Your task to perform on an android device: What is the recent news? Image 0: 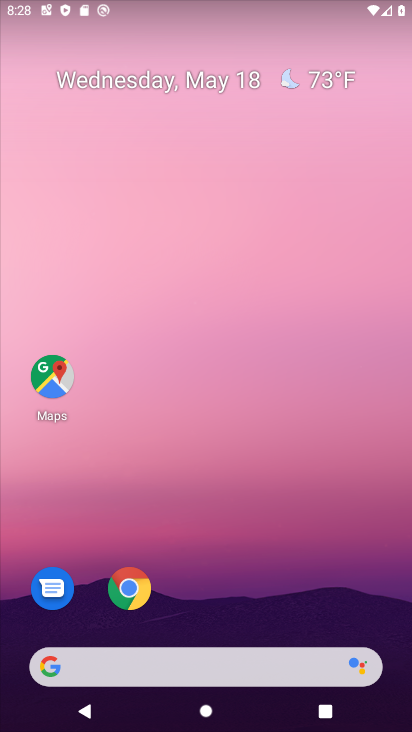
Step 0: drag from (335, 621) to (314, 167)
Your task to perform on an android device: What is the recent news? Image 1: 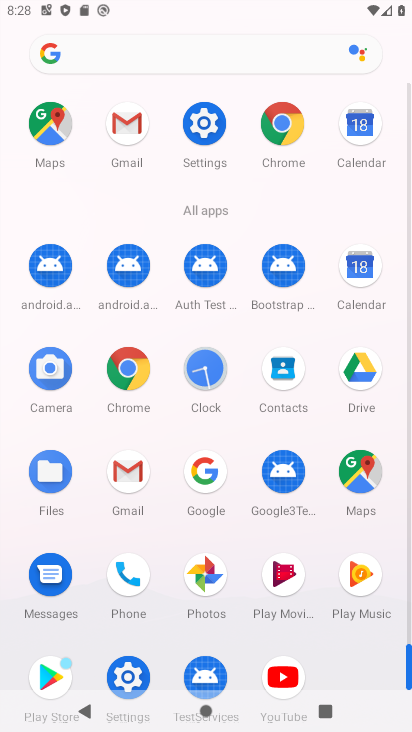
Step 1: click (111, 376)
Your task to perform on an android device: What is the recent news? Image 2: 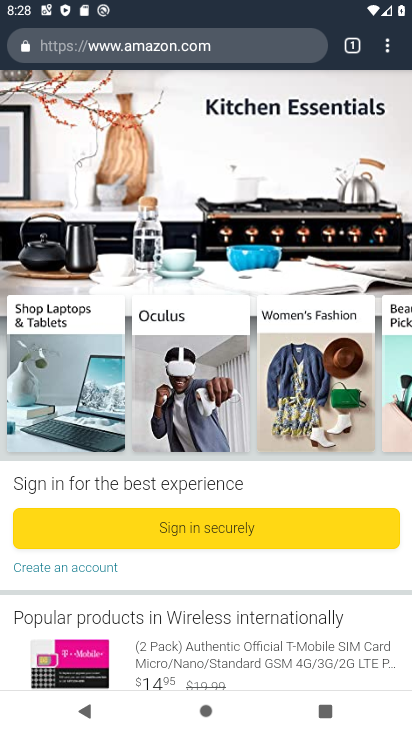
Step 2: click (236, 39)
Your task to perform on an android device: What is the recent news? Image 3: 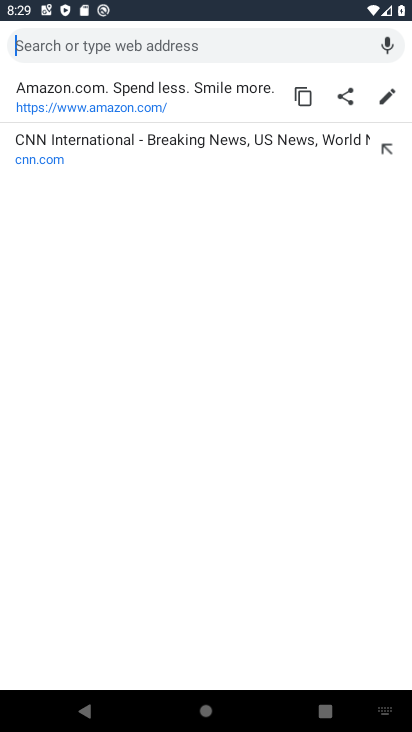
Step 3: type "what is the recent news "
Your task to perform on an android device: What is the recent news? Image 4: 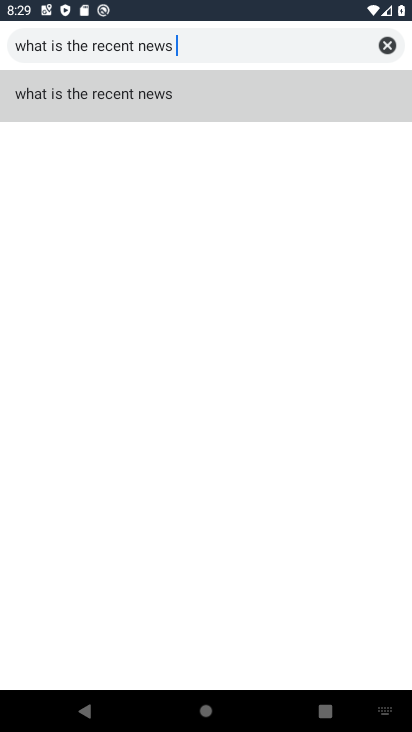
Step 4: click (178, 111)
Your task to perform on an android device: What is the recent news? Image 5: 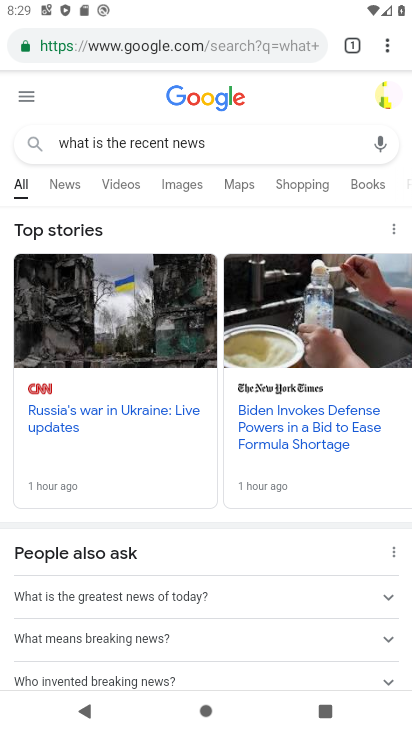
Step 5: task complete